Your task to perform on an android device: turn on airplane mode Image 0: 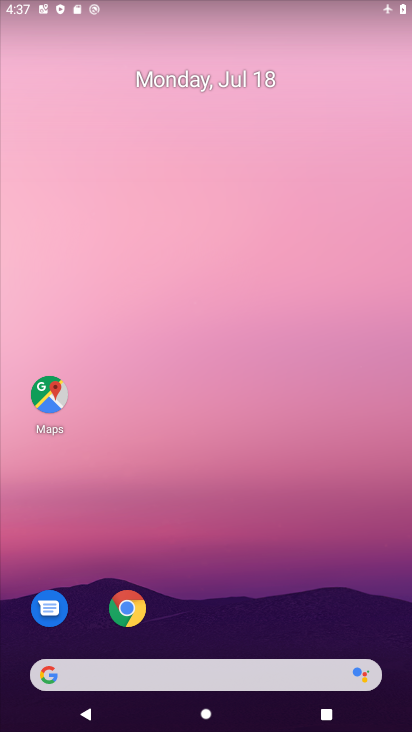
Step 0: drag from (293, 580) to (266, 25)
Your task to perform on an android device: turn on airplane mode Image 1: 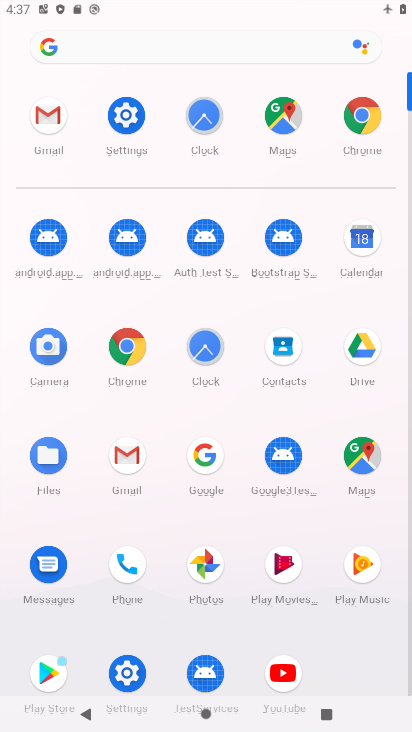
Step 1: click (121, 108)
Your task to perform on an android device: turn on airplane mode Image 2: 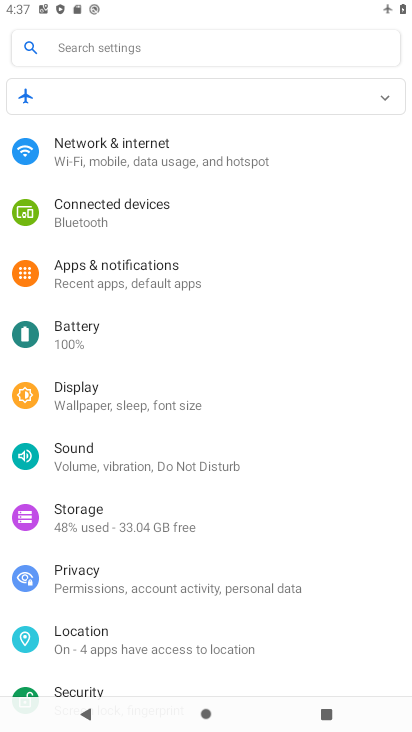
Step 2: click (157, 167)
Your task to perform on an android device: turn on airplane mode Image 3: 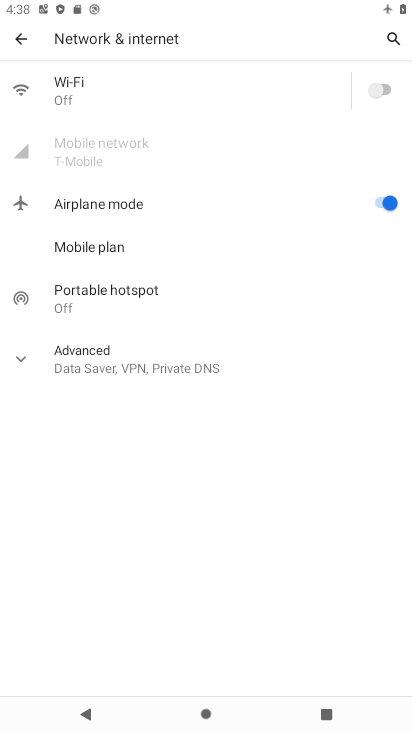
Step 3: task complete